Your task to perform on an android device: Open Yahoo.com Image 0: 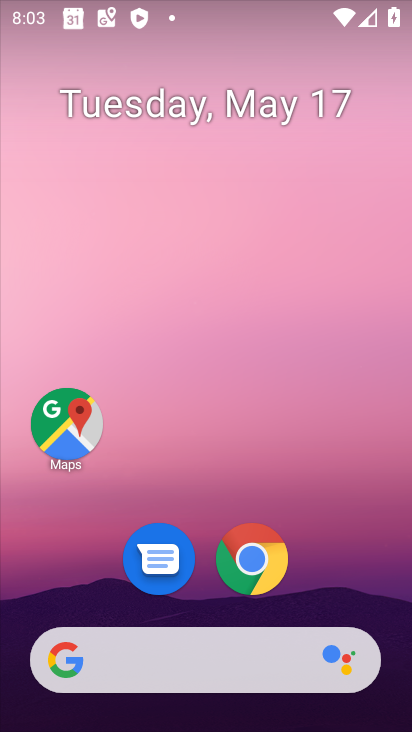
Step 0: click (265, 716)
Your task to perform on an android device: Open Yahoo.com Image 1: 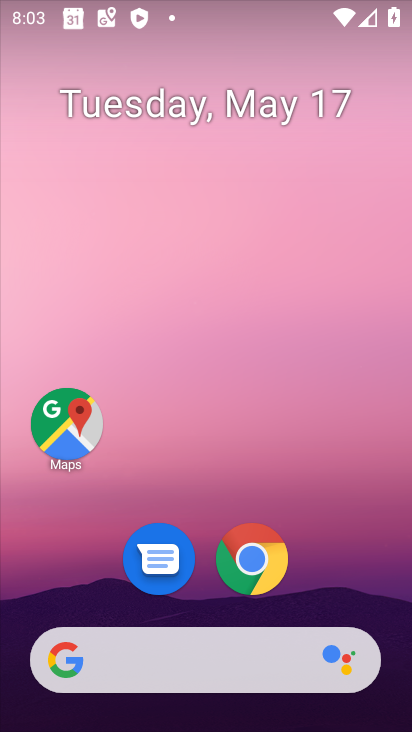
Step 1: click (208, 670)
Your task to perform on an android device: Open Yahoo.com Image 2: 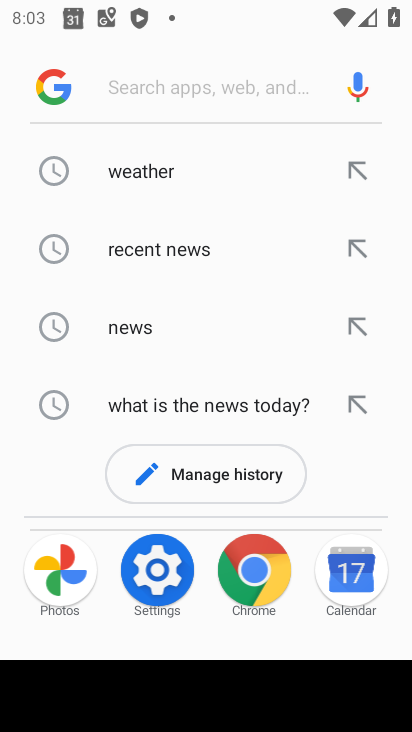
Step 2: type "yahoo.com"
Your task to perform on an android device: Open Yahoo.com Image 3: 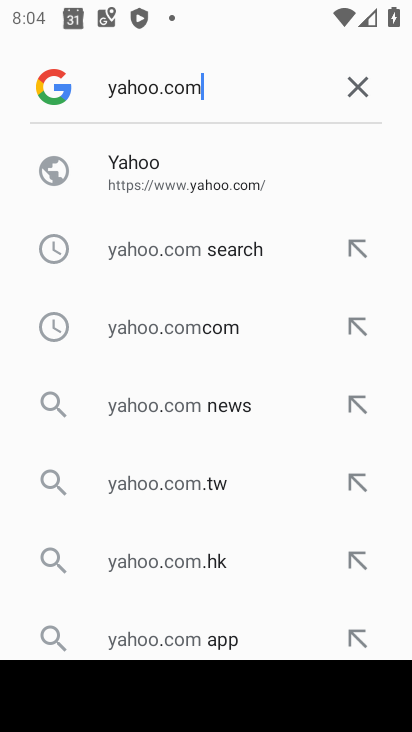
Step 3: click (260, 173)
Your task to perform on an android device: Open Yahoo.com Image 4: 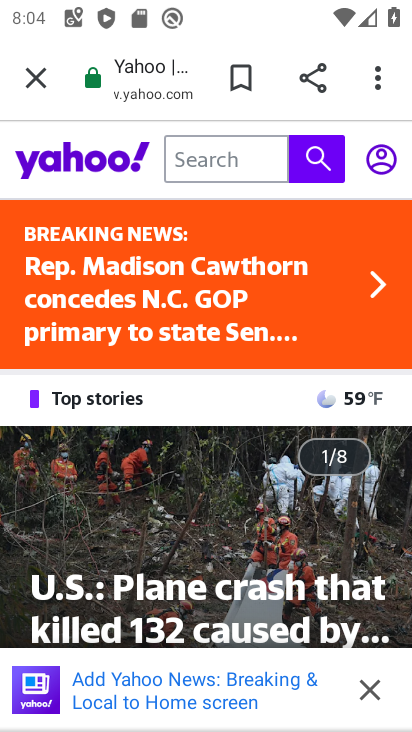
Step 4: task complete